Your task to perform on an android device: turn on javascript in the chrome app Image 0: 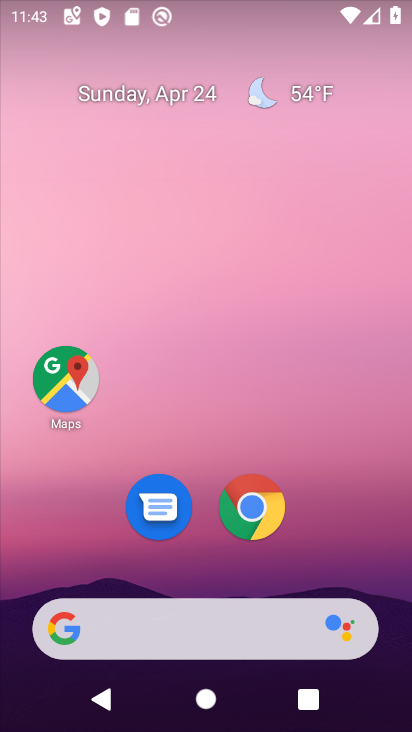
Step 0: drag from (295, 427) to (232, 30)
Your task to perform on an android device: turn on javascript in the chrome app Image 1: 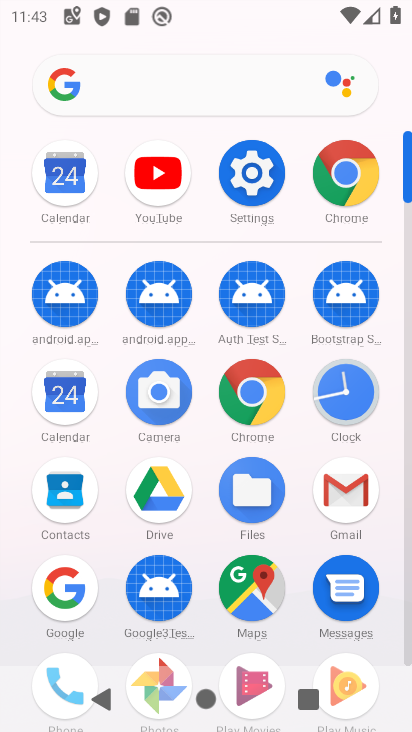
Step 1: drag from (9, 572) to (10, 264)
Your task to perform on an android device: turn on javascript in the chrome app Image 2: 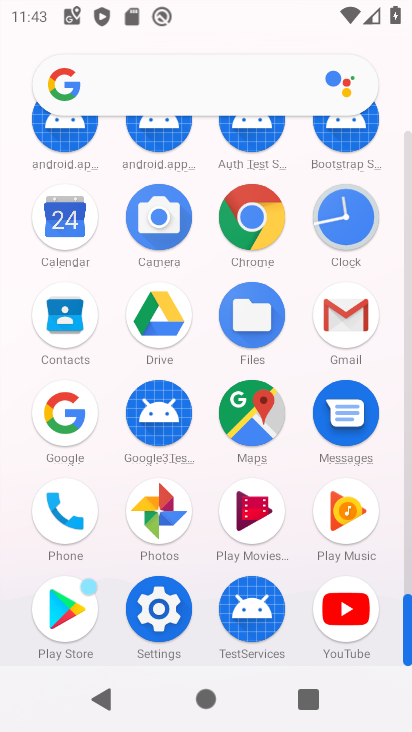
Step 2: drag from (16, 531) to (10, 290)
Your task to perform on an android device: turn on javascript in the chrome app Image 3: 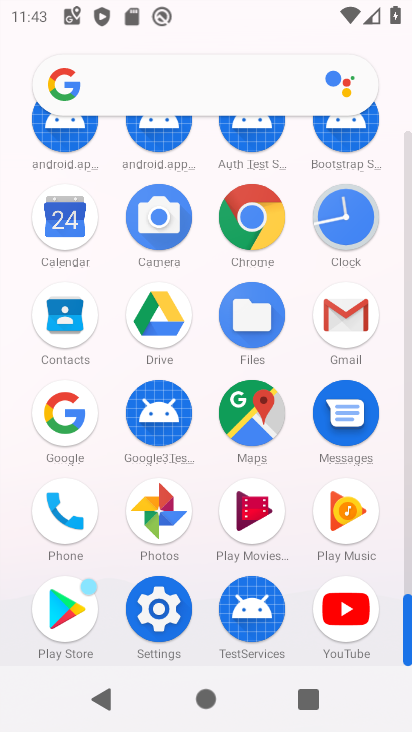
Step 3: click (254, 214)
Your task to perform on an android device: turn on javascript in the chrome app Image 4: 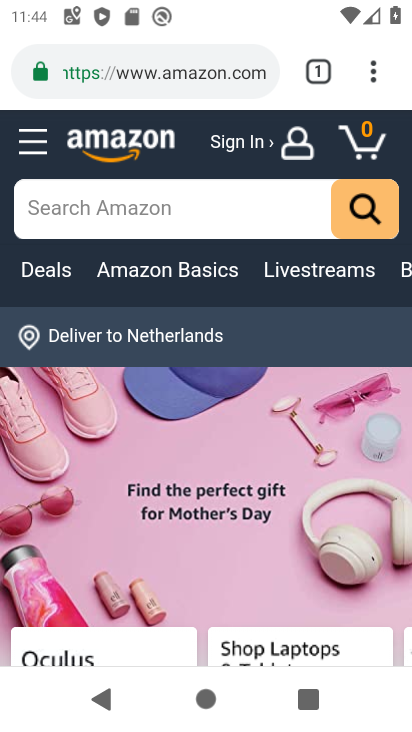
Step 4: drag from (375, 72) to (118, 490)
Your task to perform on an android device: turn on javascript in the chrome app Image 5: 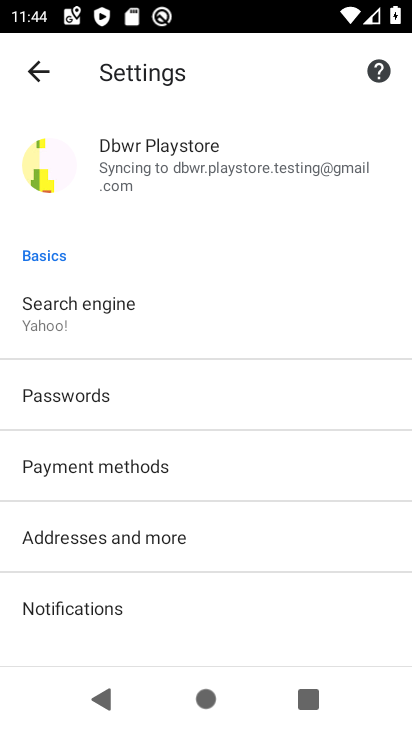
Step 5: drag from (219, 487) to (229, 158)
Your task to perform on an android device: turn on javascript in the chrome app Image 6: 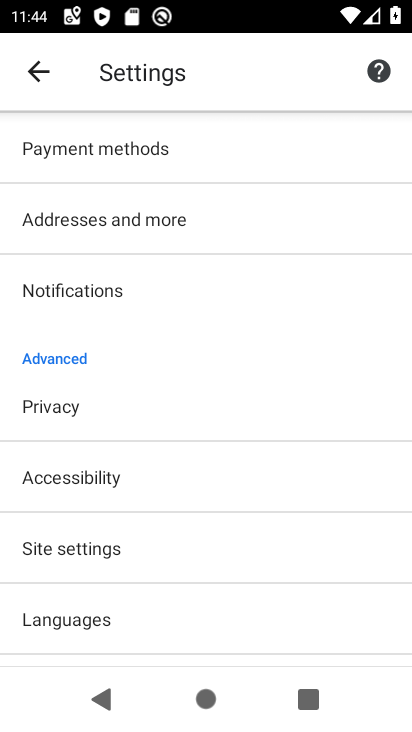
Step 6: drag from (202, 512) to (223, 131)
Your task to perform on an android device: turn on javascript in the chrome app Image 7: 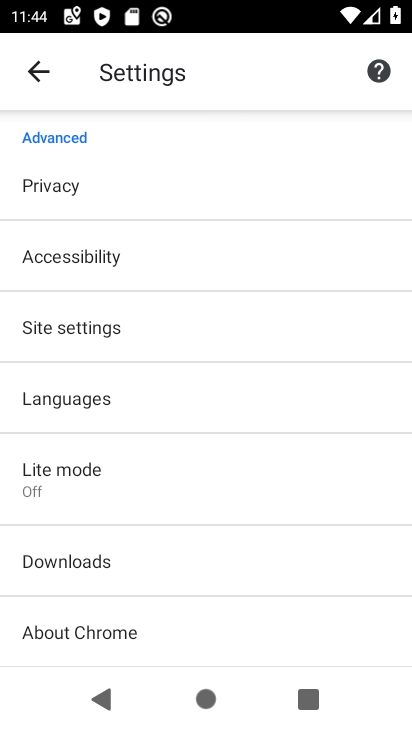
Step 7: drag from (206, 534) to (215, 184)
Your task to perform on an android device: turn on javascript in the chrome app Image 8: 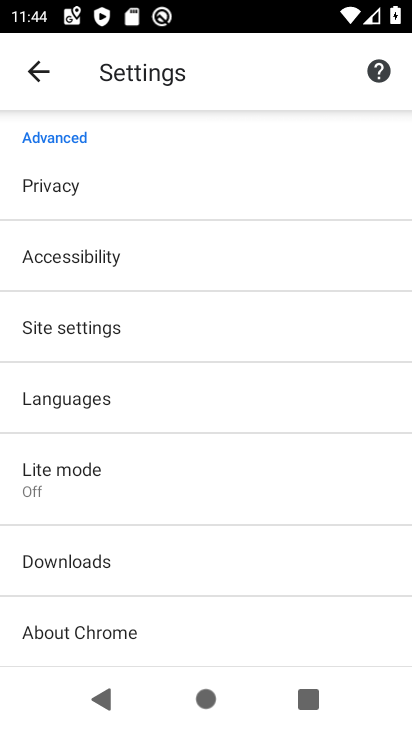
Step 8: click (97, 321)
Your task to perform on an android device: turn on javascript in the chrome app Image 9: 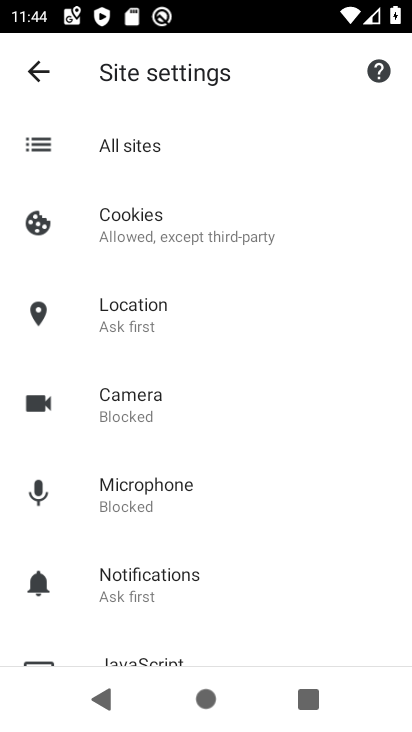
Step 9: drag from (221, 456) to (226, 163)
Your task to perform on an android device: turn on javascript in the chrome app Image 10: 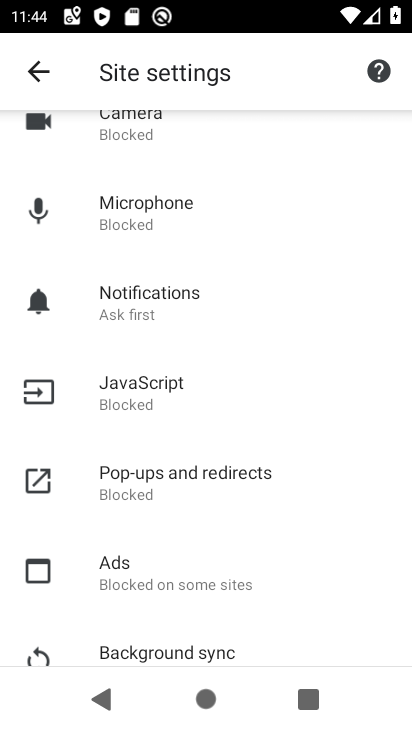
Step 10: drag from (213, 540) to (236, 146)
Your task to perform on an android device: turn on javascript in the chrome app Image 11: 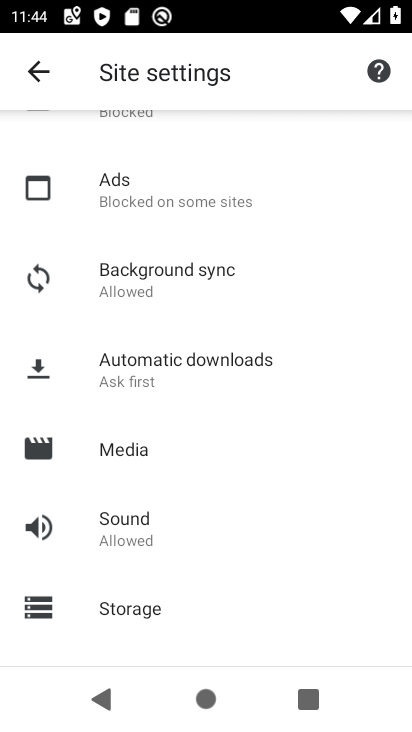
Step 11: drag from (231, 465) to (252, 166)
Your task to perform on an android device: turn on javascript in the chrome app Image 12: 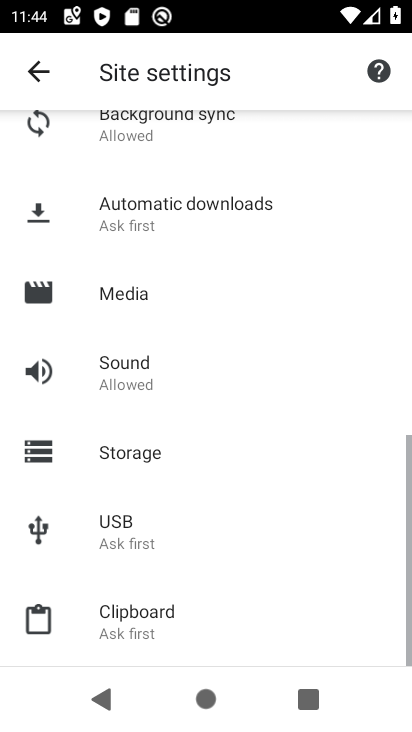
Step 12: drag from (248, 535) to (263, 199)
Your task to perform on an android device: turn on javascript in the chrome app Image 13: 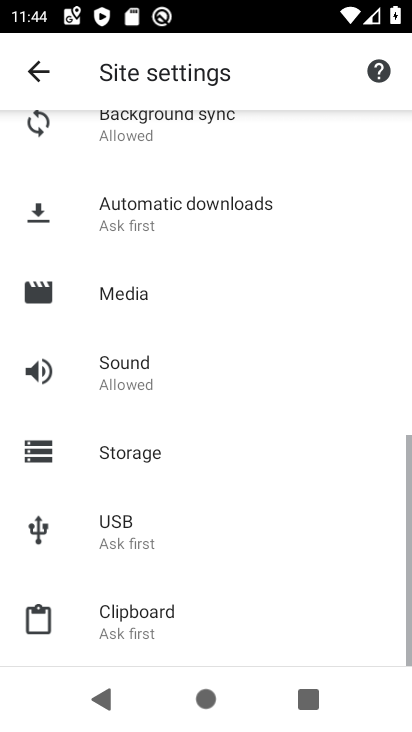
Step 13: drag from (265, 320) to (260, 528)
Your task to perform on an android device: turn on javascript in the chrome app Image 14: 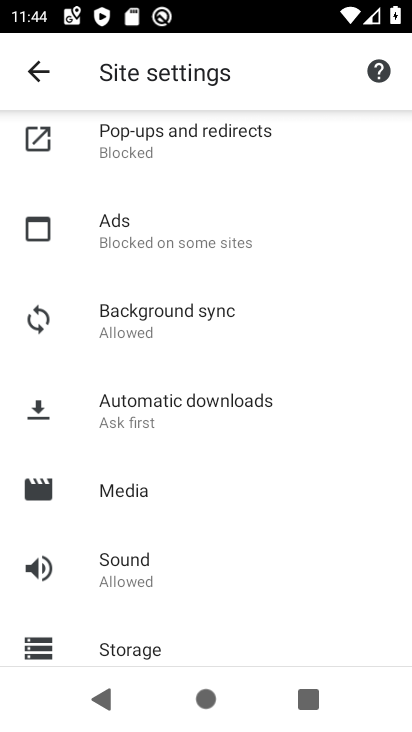
Step 14: drag from (246, 242) to (248, 578)
Your task to perform on an android device: turn on javascript in the chrome app Image 15: 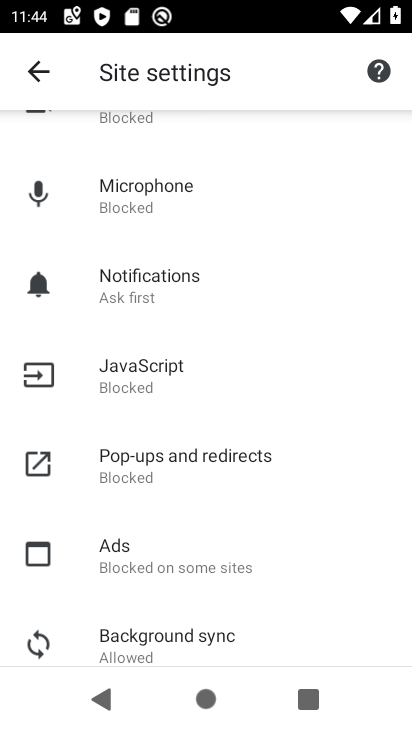
Step 15: drag from (249, 303) to (251, 555)
Your task to perform on an android device: turn on javascript in the chrome app Image 16: 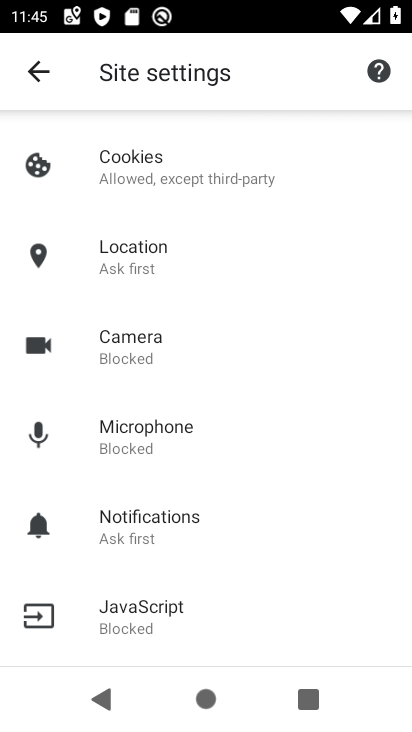
Step 16: drag from (253, 222) to (244, 536)
Your task to perform on an android device: turn on javascript in the chrome app Image 17: 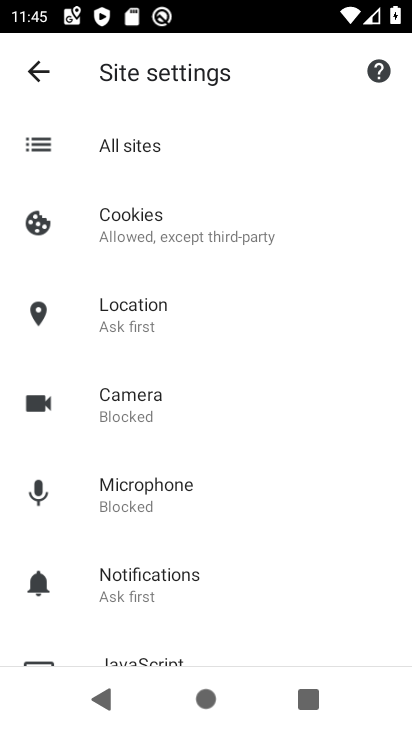
Step 17: drag from (252, 260) to (240, 498)
Your task to perform on an android device: turn on javascript in the chrome app Image 18: 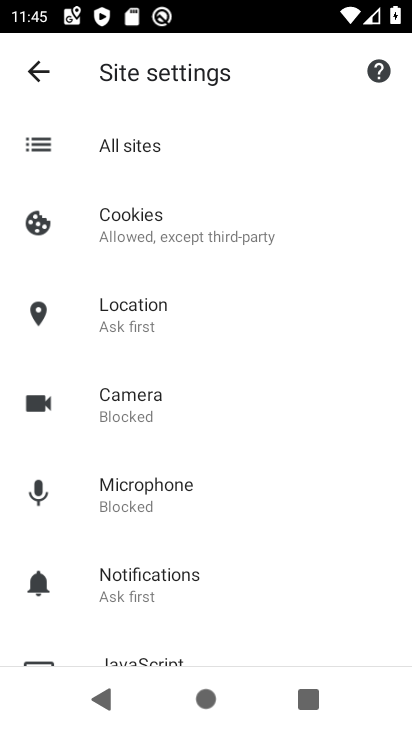
Step 18: drag from (197, 465) to (215, 162)
Your task to perform on an android device: turn on javascript in the chrome app Image 19: 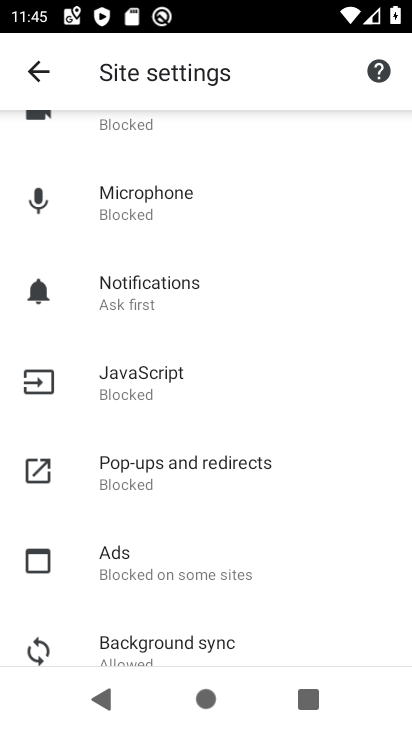
Step 19: click (168, 381)
Your task to perform on an android device: turn on javascript in the chrome app Image 20: 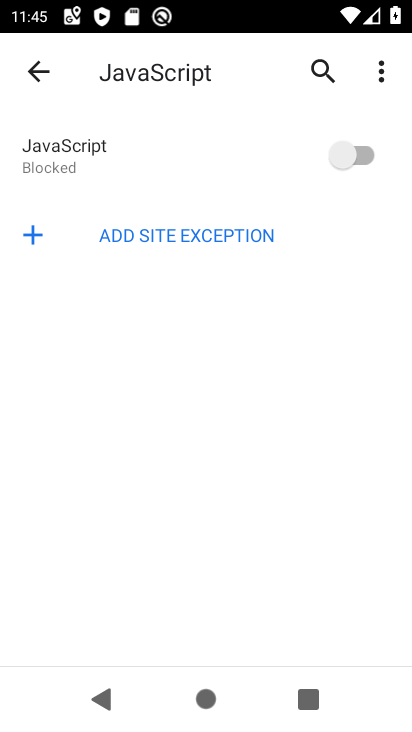
Step 20: click (366, 148)
Your task to perform on an android device: turn on javascript in the chrome app Image 21: 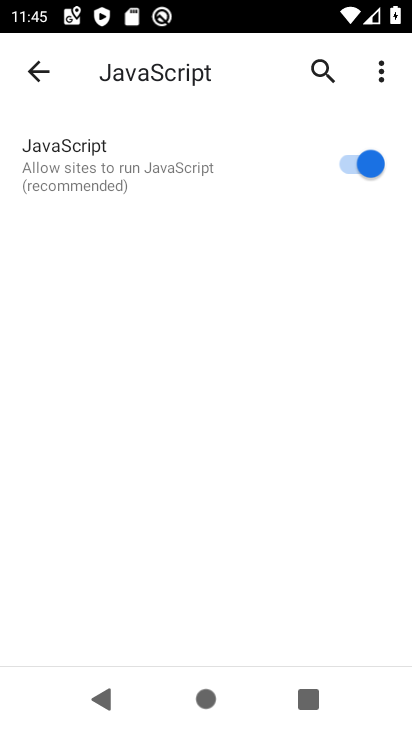
Step 21: task complete